Your task to perform on an android device: change alarm snooze length Image 0: 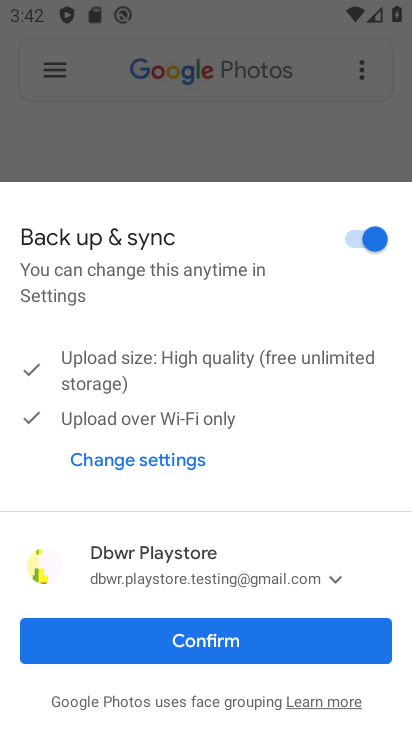
Step 0: press home button
Your task to perform on an android device: change alarm snooze length Image 1: 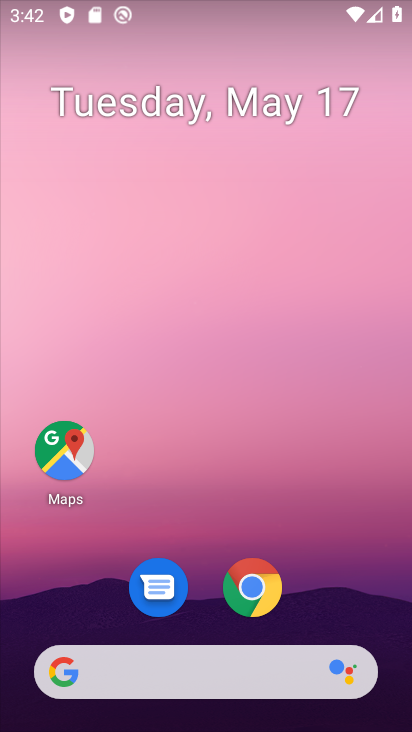
Step 1: drag from (286, 680) to (265, 207)
Your task to perform on an android device: change alarm snooze length Image 2: 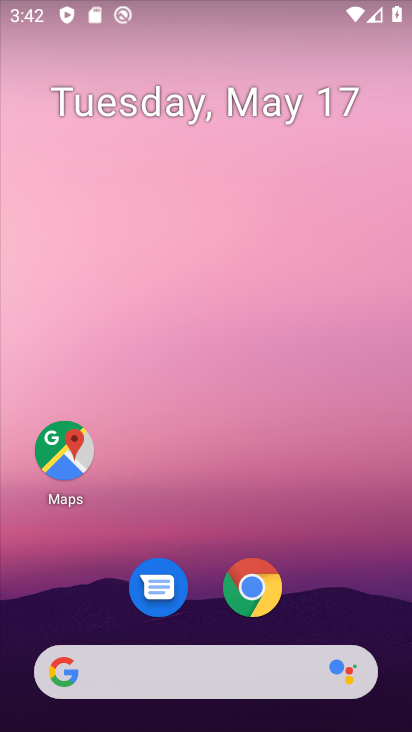
Step 2: drag from (290, 589) to (233, 150)
Your task to perform on an android device: change alarm snooze length Image 3: 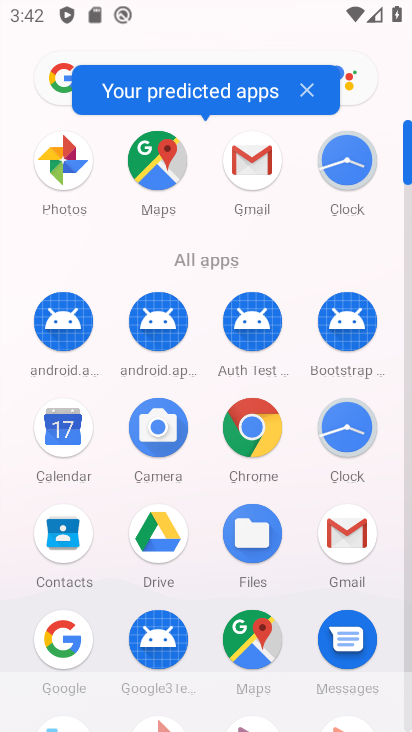
Step 3: click (353, 404)
Your task to perform on an android device: change alarm snooze length Image 4: 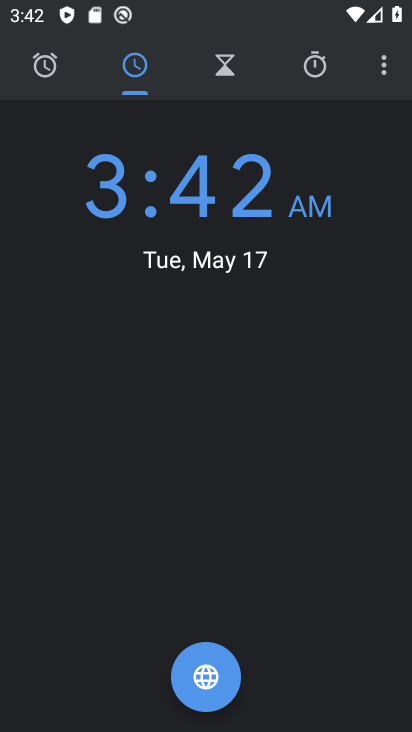
Step 4: click (382, 85)
Your task to perform on an android device: change alarm snooze length Image 5: 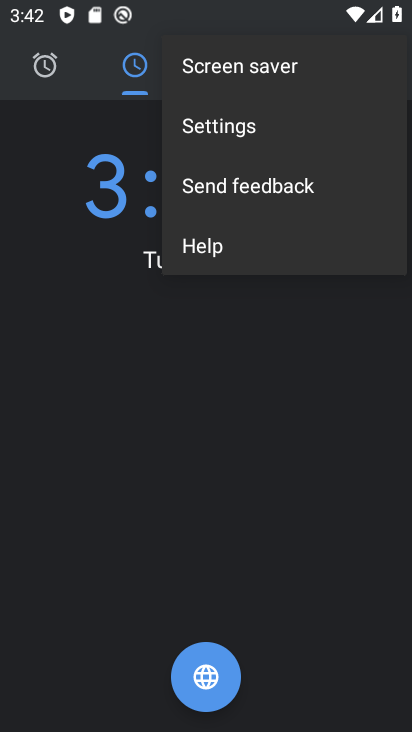
Step 5: click (219, 131)
Your task to perform on an android device: change alarm snooze length Image 6: 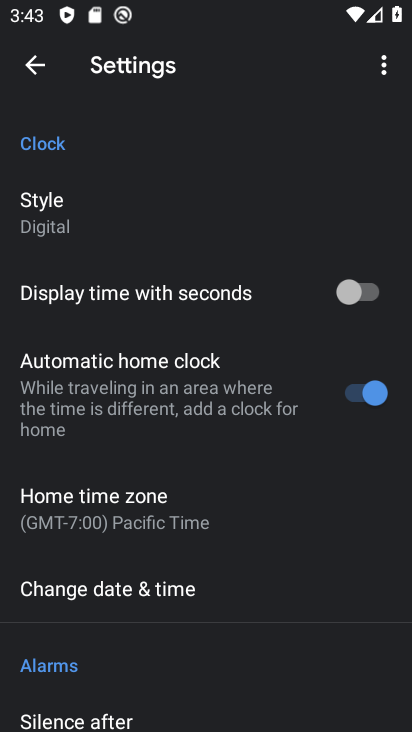
Step 6: drag from (148, 534) to (167, 282)
Your task to perform on an android device: change alarm snooze length Image 7: 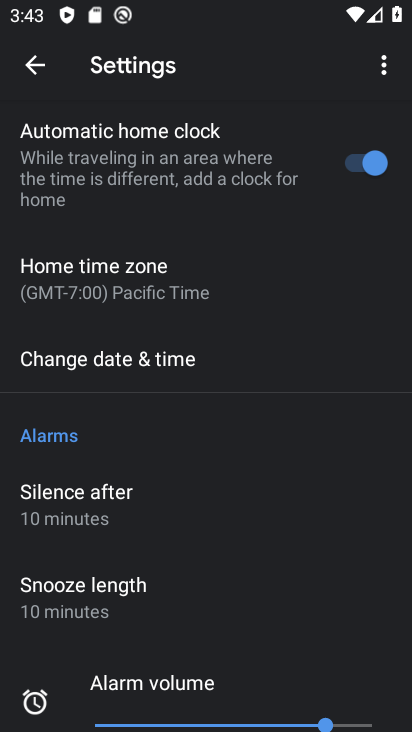
Step 7: click (95, 584)
Your task to perform on an android device: change alarm snooze length Image 8: 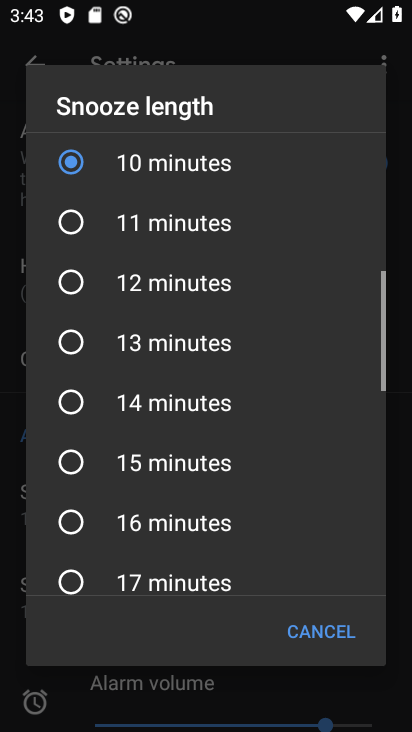
Step 8: click (167, 292)
Your task to perform on an android device: change alarm snooze length Image 9: 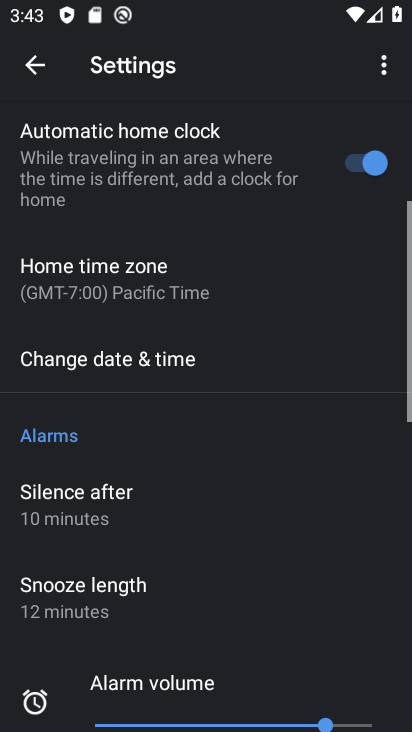
Step 9: task complete